Your task to perform on an android device: Open Google Chrome and click the shortcut for Amazon.com Image 0: 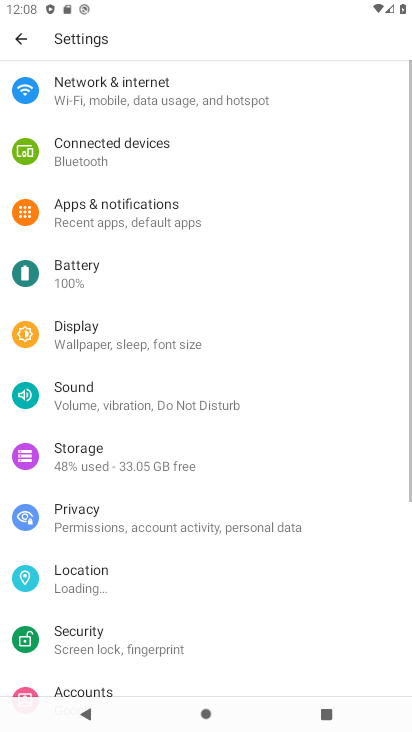
Step 0: press home button
Your task to perform on an android device: Open Google Chrome and click the shortcut for Amazon.com Image 1: 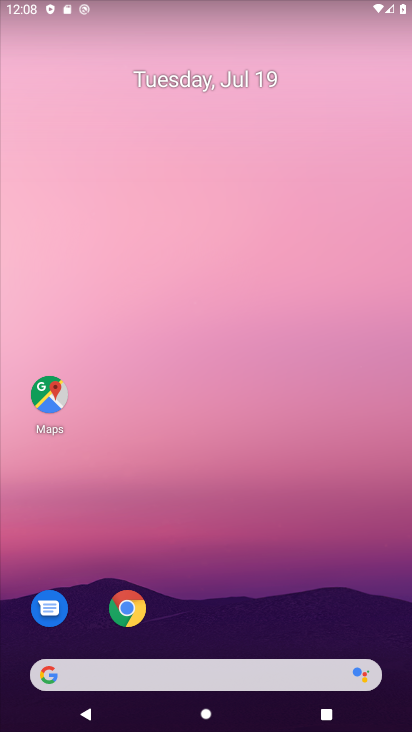
Step 1: click (127, 609)
Your task to perform on an android device: Open Google Chrome and click the shortcut for Amazon.com Image 2: 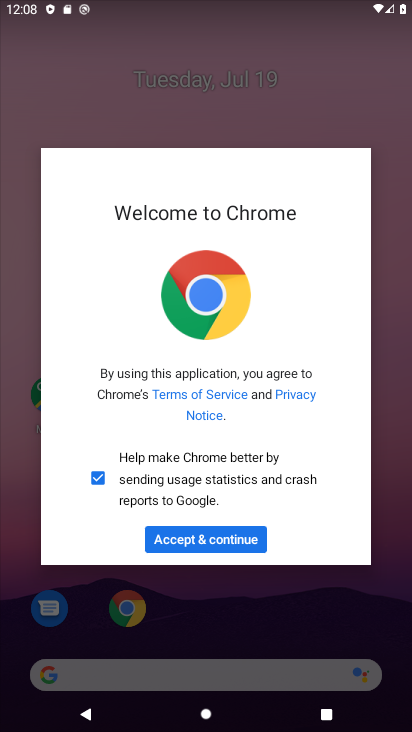
Step 2: click (211, 530)
Your task to perform on an android device: Open Google Chrome and click the shortcut for Amazon.com Image 3: 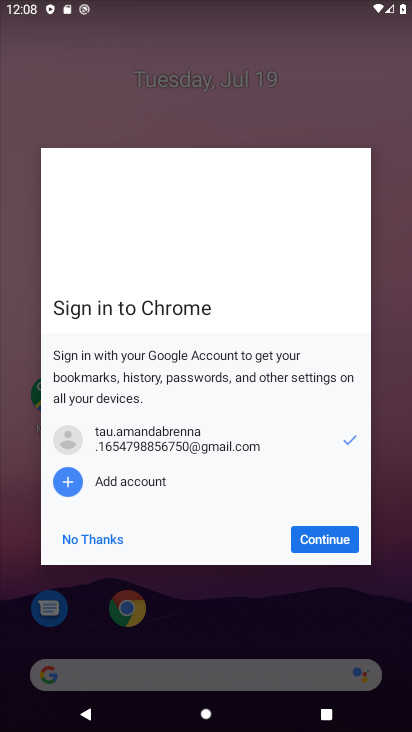
Step 3: click (337, 544)
Your task to perform on an android device: Open Google Chrome and click the shortcut for Amazon.com Image 4: 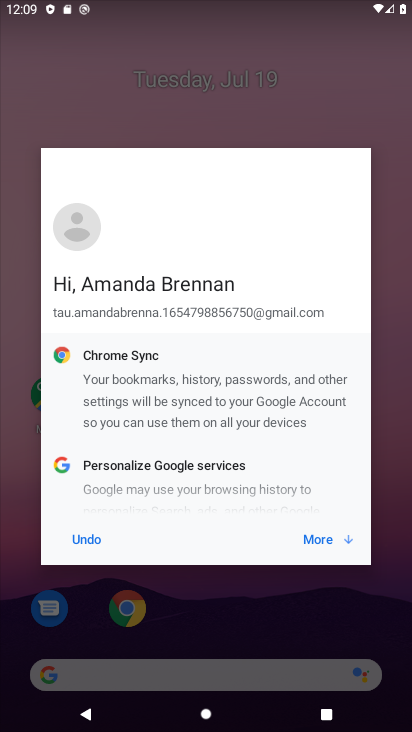
Step 4: click (320, 541)
Your task to perform on an android device: Open Google Chrome and click the shortcut for Amazon.com Image 5: 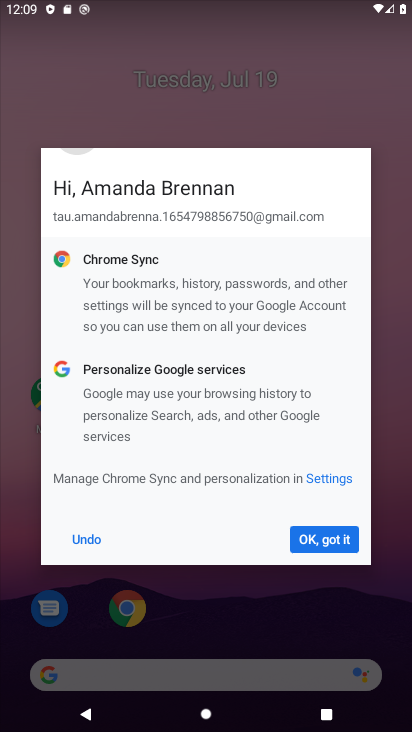
Step 5: click (320, 541)
Your task to perform on an android device: Open Google Chrome and click the shortcut for Amazon.com Image 6: 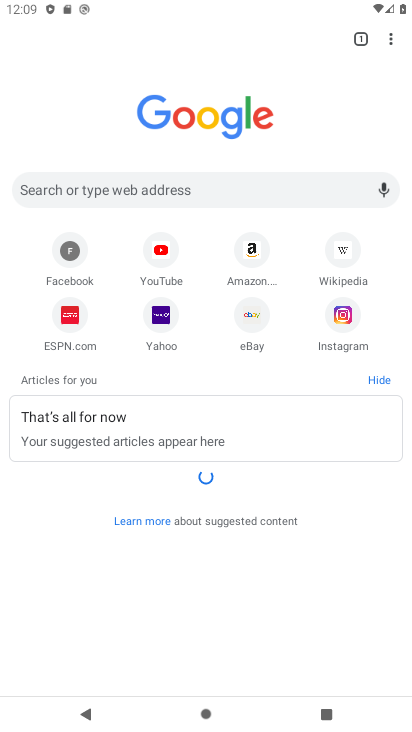
Step 6: click (251, 250)
Your task to perform on an android device: Open Google Chrome and click the shortcut for Amazon.com Image 7: 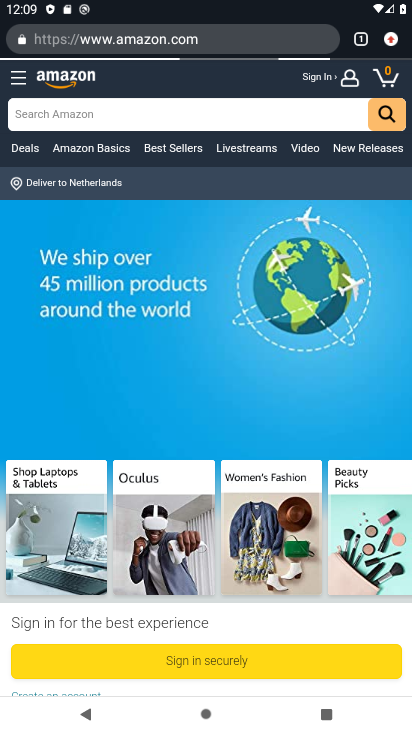
Step 7: task complete